Your task to perform on an android device: check android version Image 0: 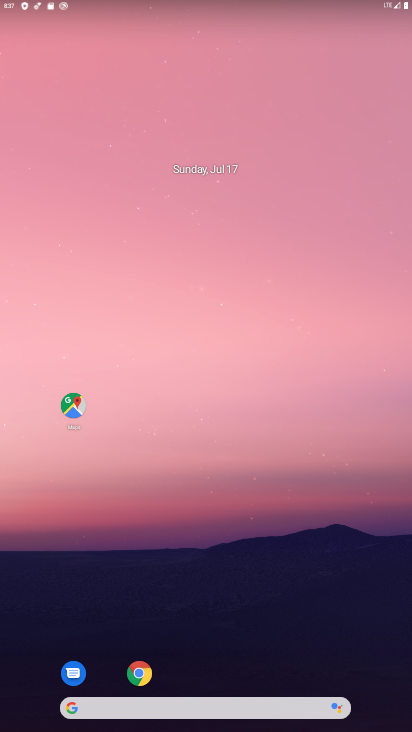
Step 0: drag from (369, 706) to (239, 5)
Your task to perform on an android device: check android version Image 1: 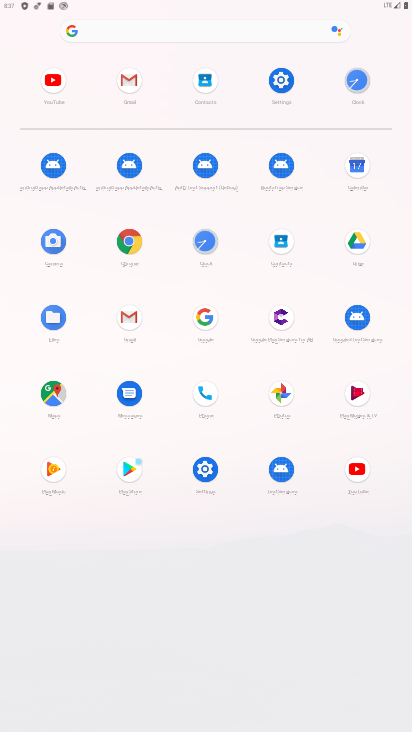
Step 1: click (210, 469)
Your task to perform on an android device: check android version Image 2: 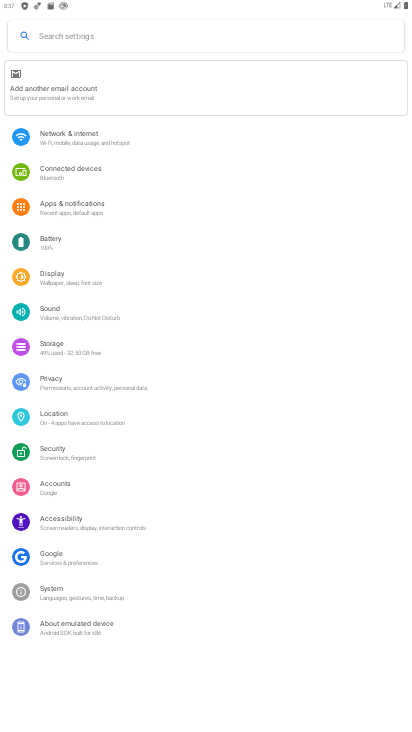
Step 2: click (67, 628)
Your task to perform on an android device: check android version Image 3: 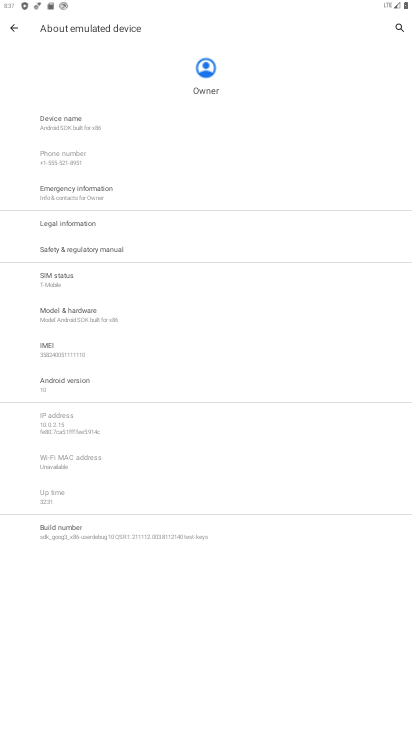
Step 3: click (78, 382)
Your task to perform on an android device: check android version Image 4: 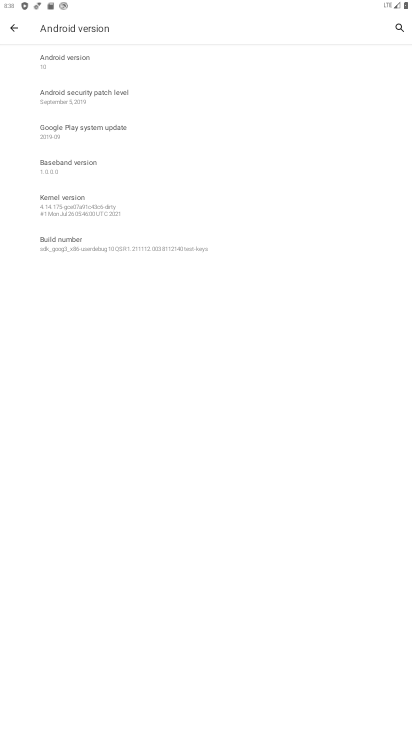
Step 4: task complete